Your task to perform on an android device: Go to display settings Image 0: 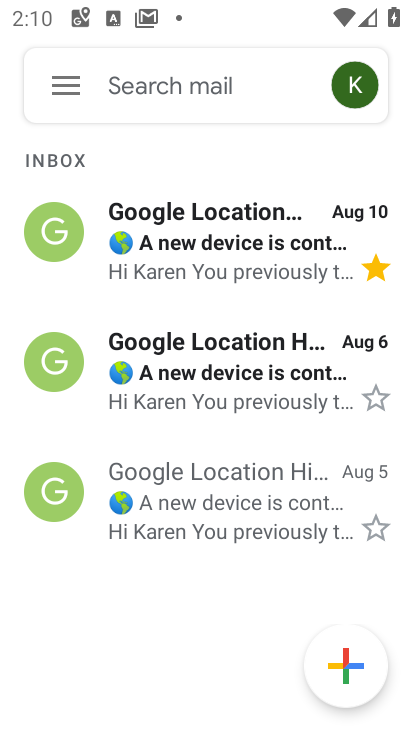
Step 0: press home button
Your task to perform on an android device: Go to display settings Image 1: 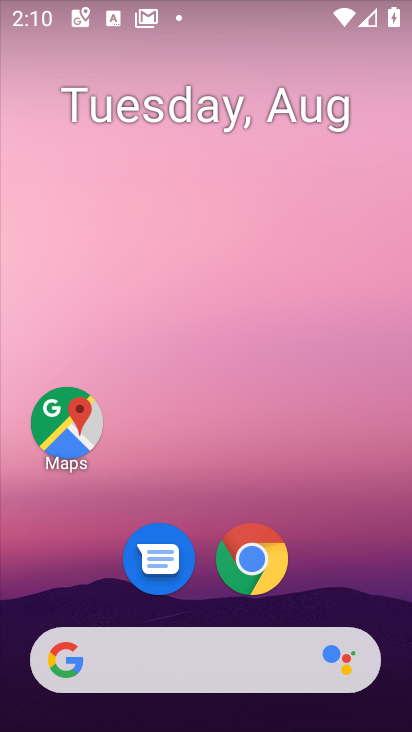
Step 1: drag from (194, 483) to (182, 51)
Your task to perform on an android device: Go to display settings Image 2: 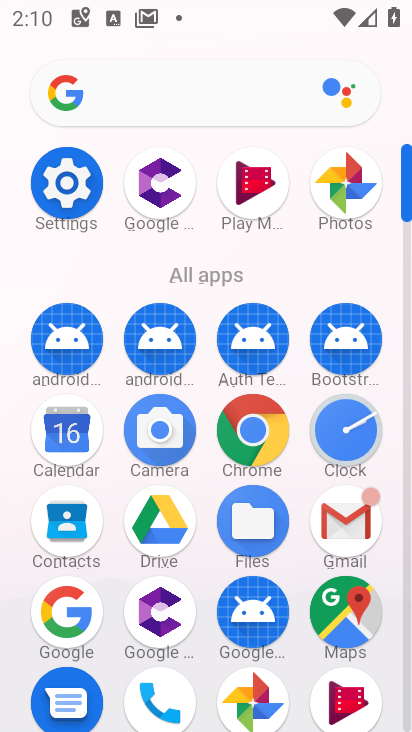
Step 2: click (50, 180)
Your task to perform on an android device: Go to display settings Image 3: 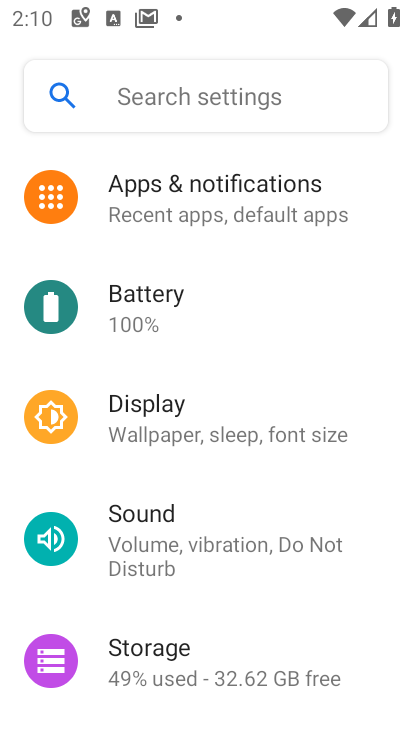
Step 3: click (179, 436)
Your task to perform on an android device: Go to display settings Image 4: 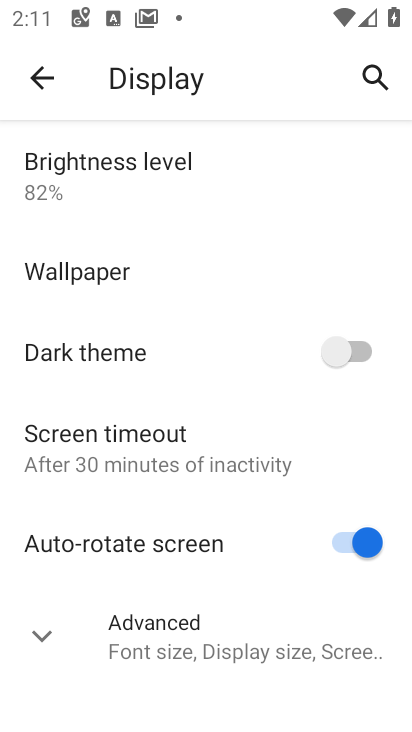
Step 4: task complete